Your task to perform on an android device: Check the news Image 0: 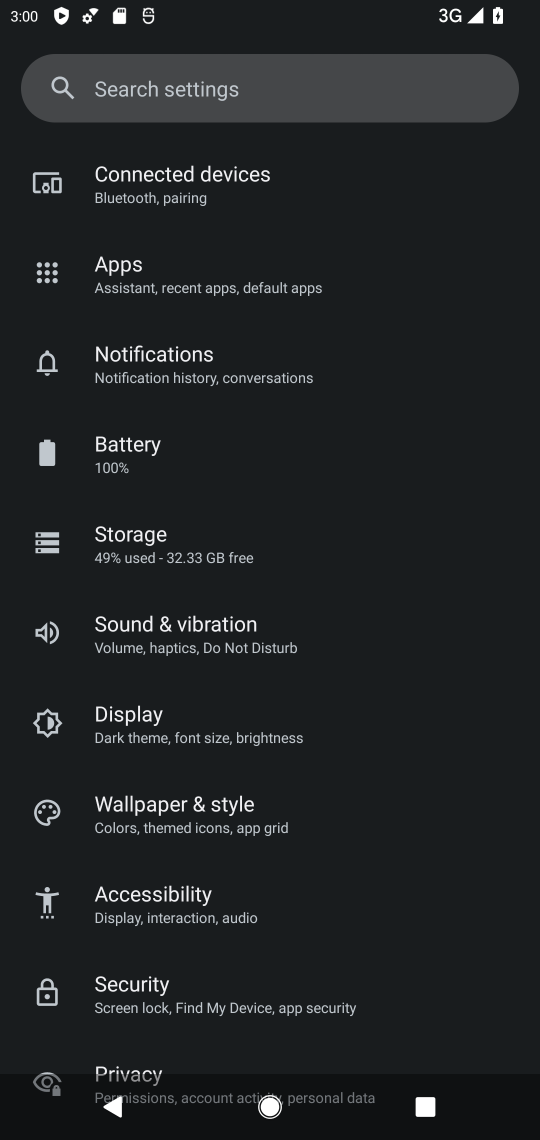
Step 0: press home button
Your task to perform on an android device: Check the news Image 1: 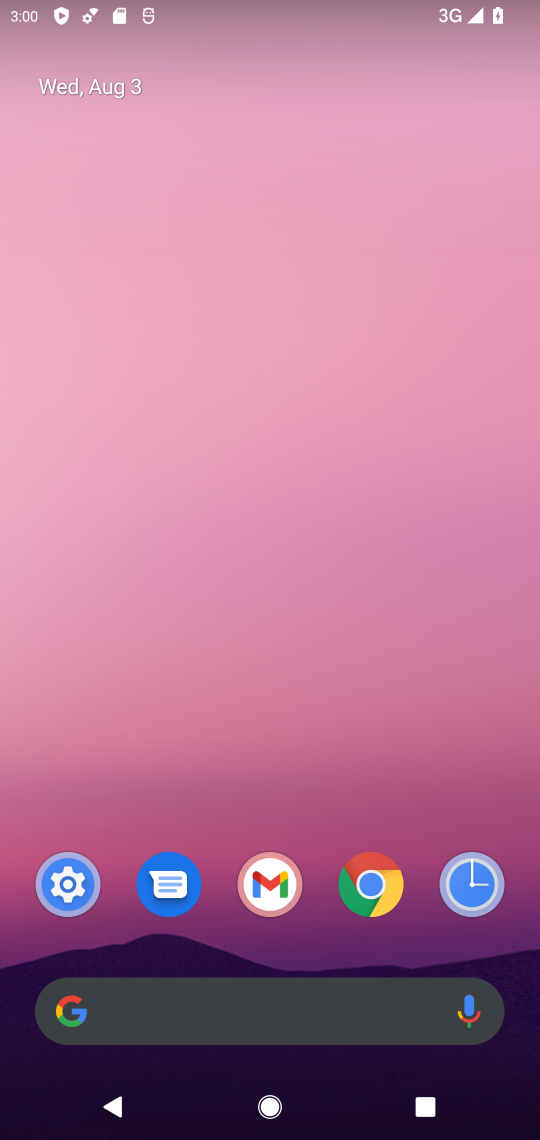
Step 1: click (184, 989)
Your task to perform on an android device: Check the news Image 2: 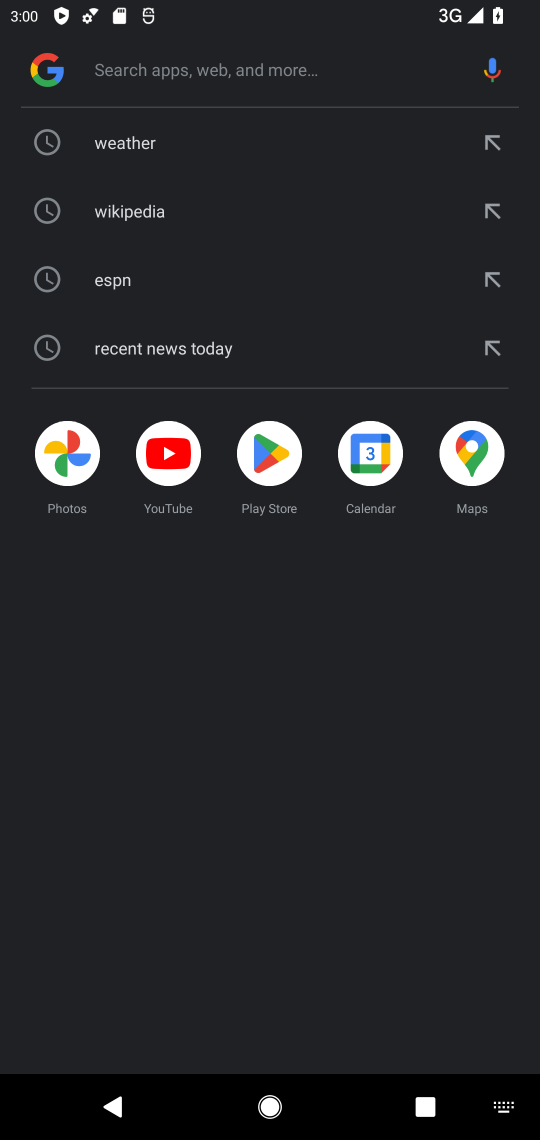
Step 2: type "news"
Your task to perform on an android device: Check the news Image 3: 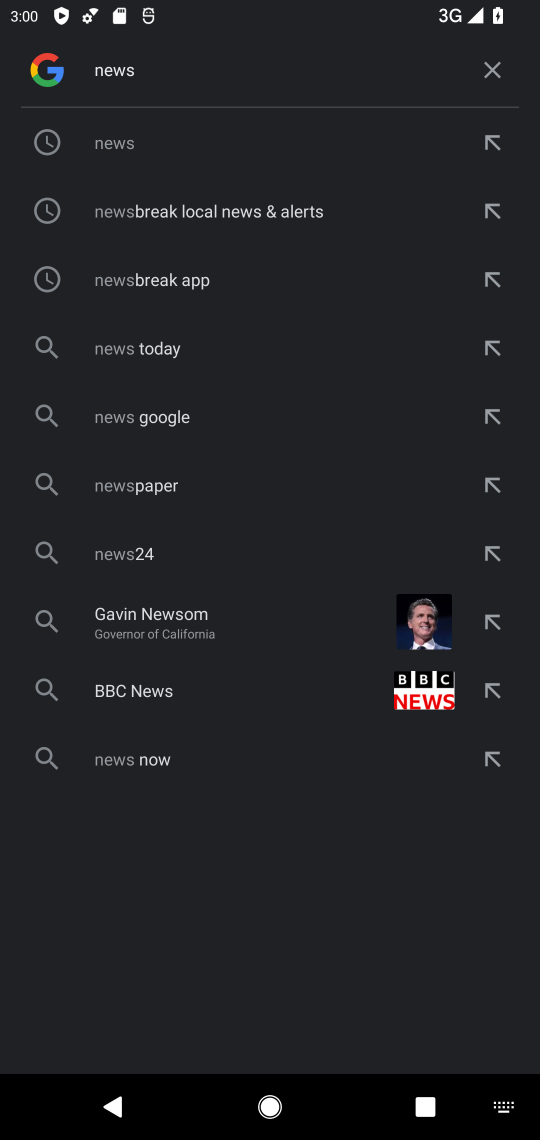
Step 3: click (164, 161)
Your task to perform on an android device: Check the news Image 4: 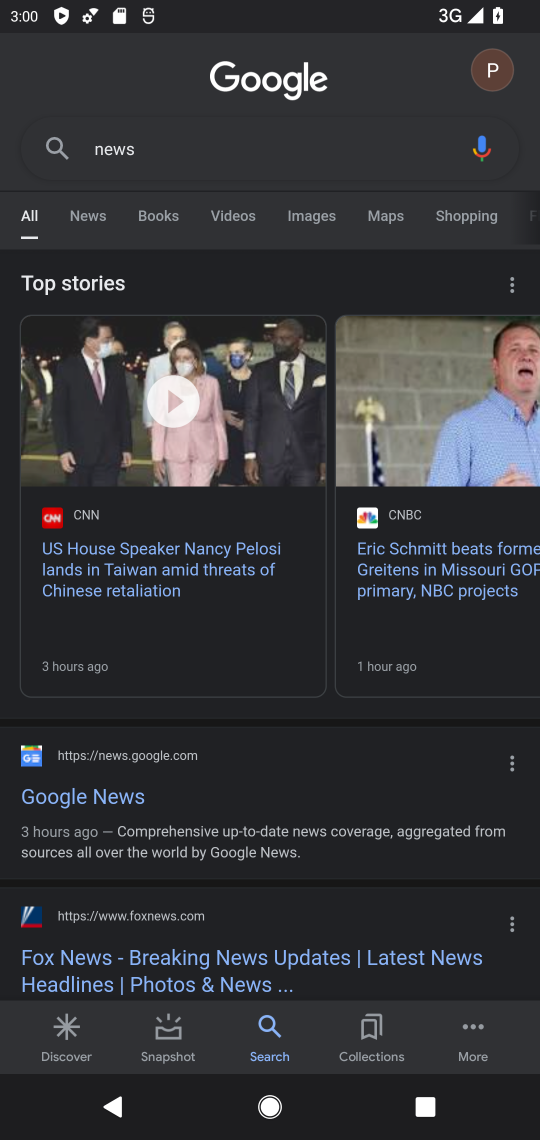
Step 4: task complete